Your task to perform on an android device: turn off location history Image 0: 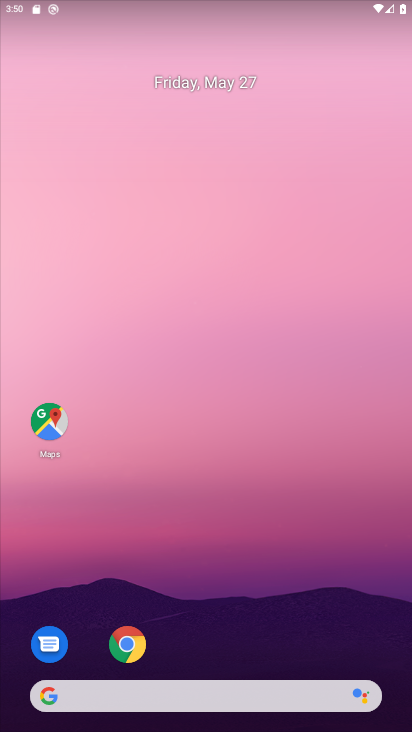
Step 0: drag from (231, 450) to (165, 5)
Your task to perform on an android device: turn off location history Image 1: 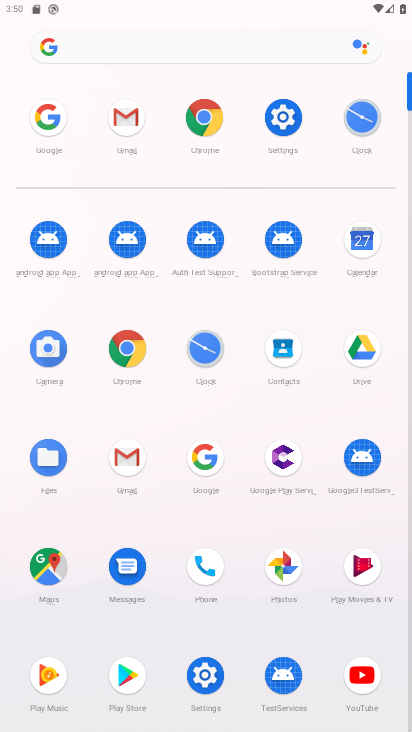
Step 1: click (284, 125)
Your task to perform on an android device: turn off location history Image 2: 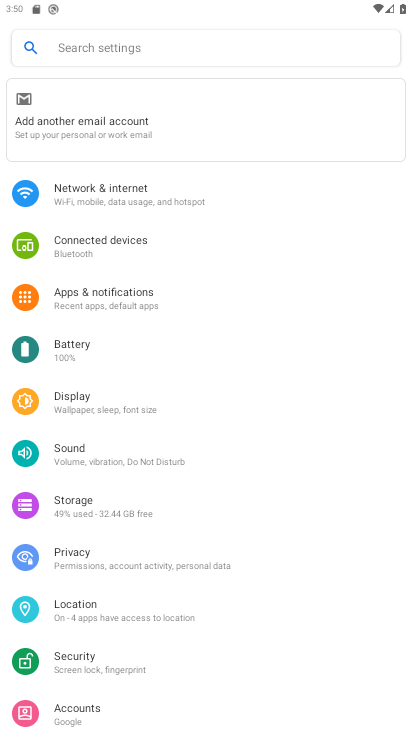
Step 2: click (135, 607)
Your task to perform on an android device: turn off location history Image 3: 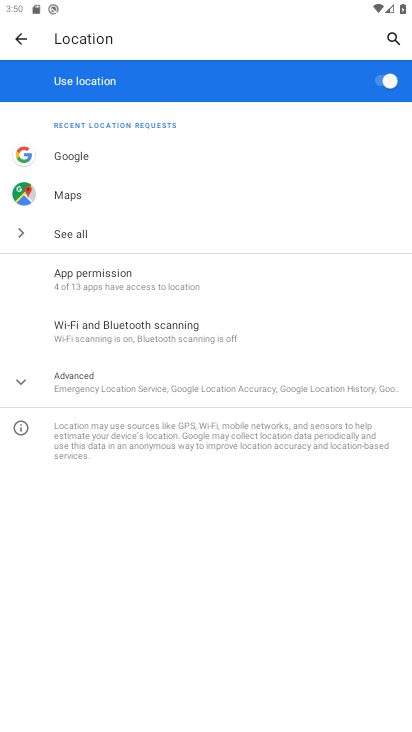
Step 3: click (136, 381)
Your task to perform on an android device: turn off location history Image 4: 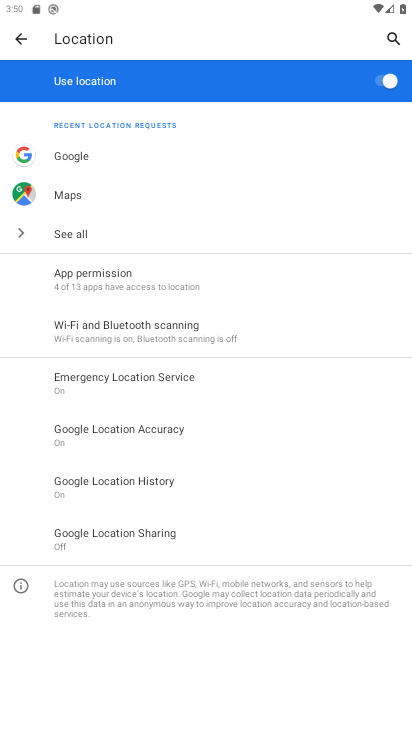
Step 4: click (127, 484)
Your task to perform on an android device: turn off location history Image 5: 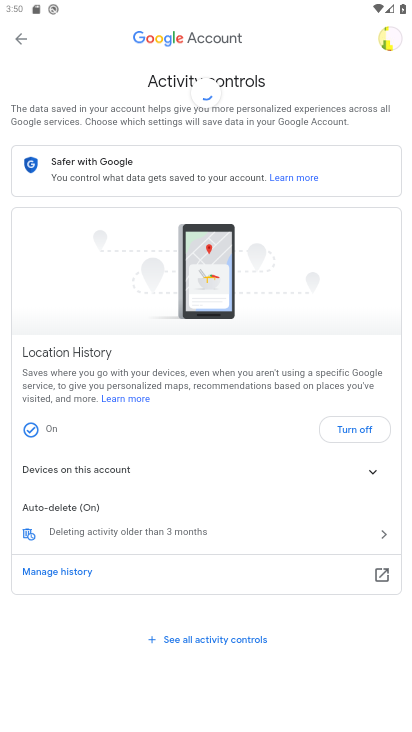
Step 5: click (362, 417)
Your task to perform on an android device: turn off location history Image 6: 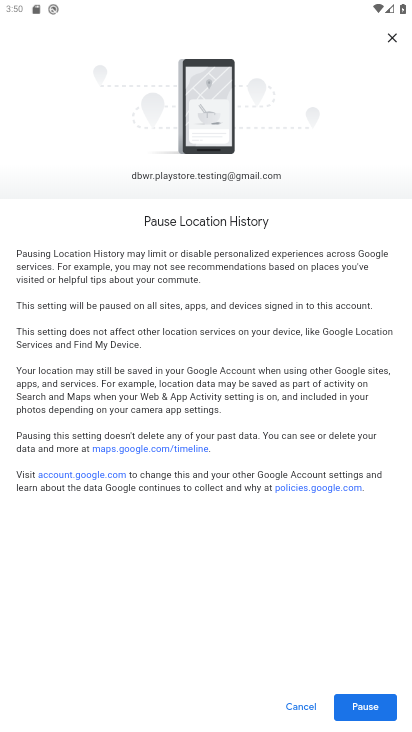
Step 6: click (368, 703)
Your task to perform on an android device: turn off location history Image 7: 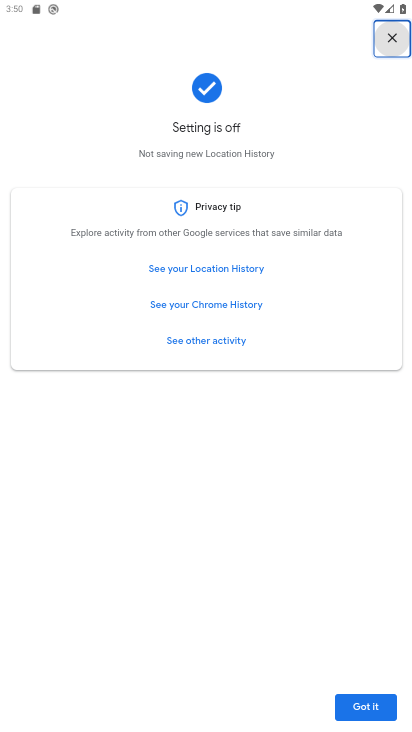
Step 7: click (375, 711)
Your task to perform on an android device: turn off location history Image 8: 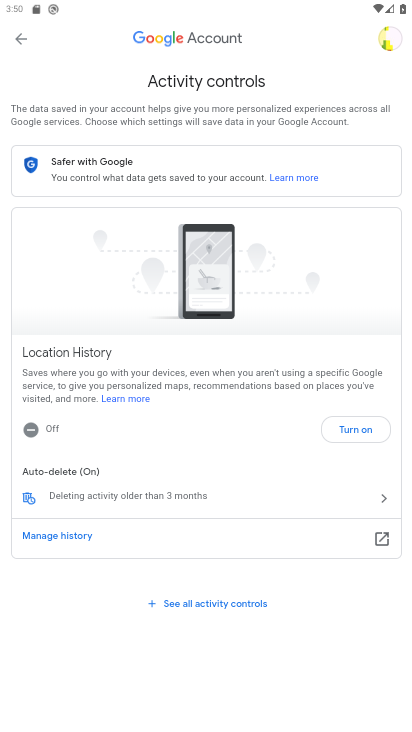
Step 8: task complete